Your task to perform on an android device: snooze an email in the gmail app Image 0: 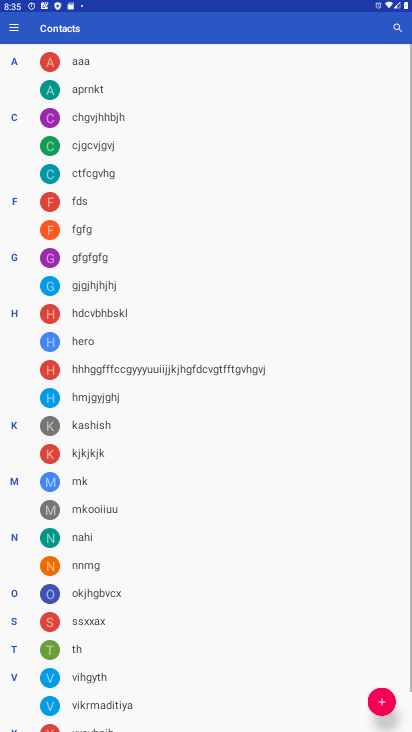
Step 0: press home button
Your task to perform on an android device: snooze an email in the gmail app Image 1: 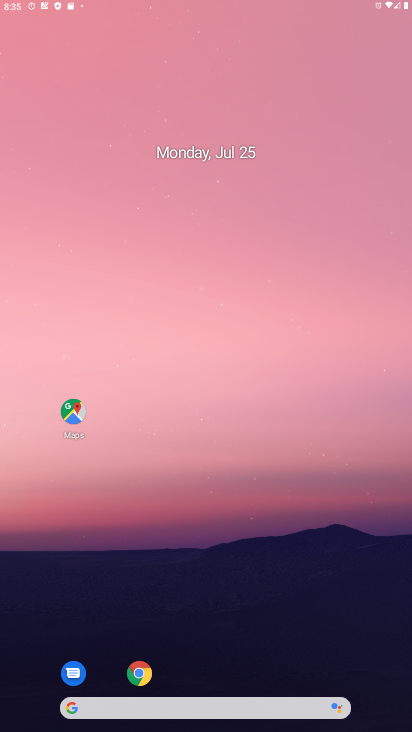
Step 1: drag from (408, 678) to (242, 44)
Your task to perform on an android device: snooze an email in the gmail app Image 2: 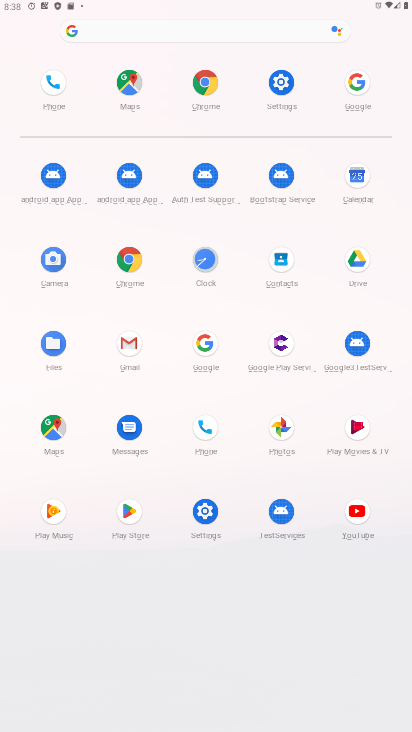
Step 2: click (134, 348)
Your task to perform on an android device: snooze an email in the gmail app Image 3: 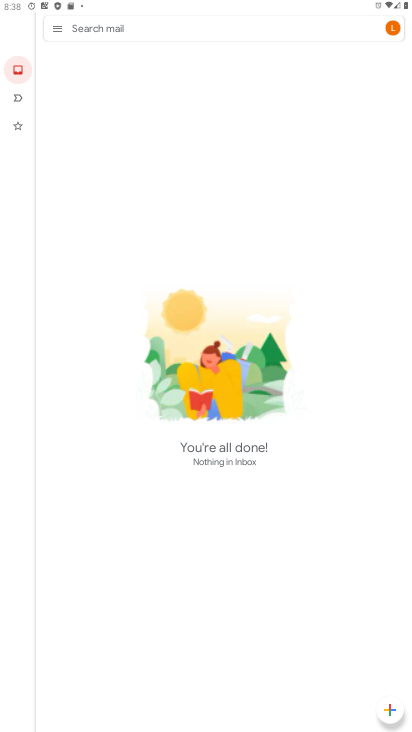
Step 3: task complete